Your task to perform on an android device: Open notification settings Image 0: 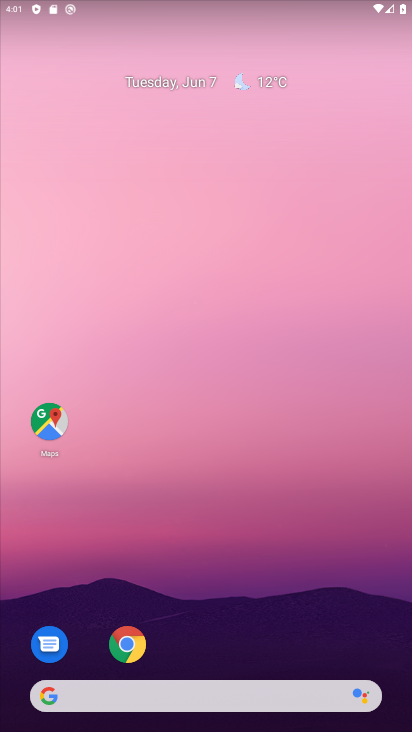
Step 0: drag from (213, 651) to (219, 244)
Your task to perform on an android device: Open notification settings Image 1: 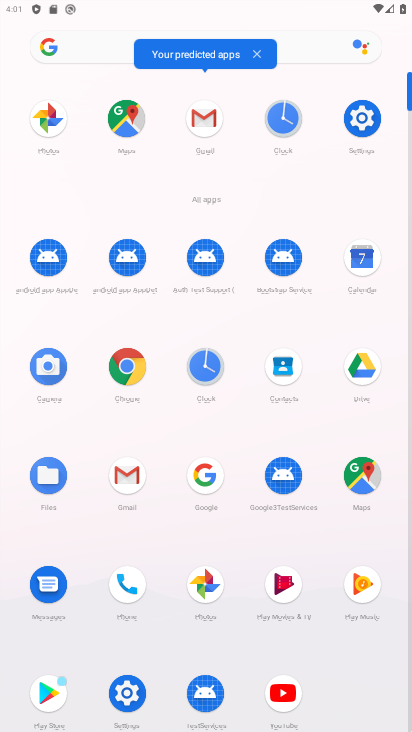
Step 1: click (360, 121)
Your task to perform on an android device: Open notification settings Image 2: 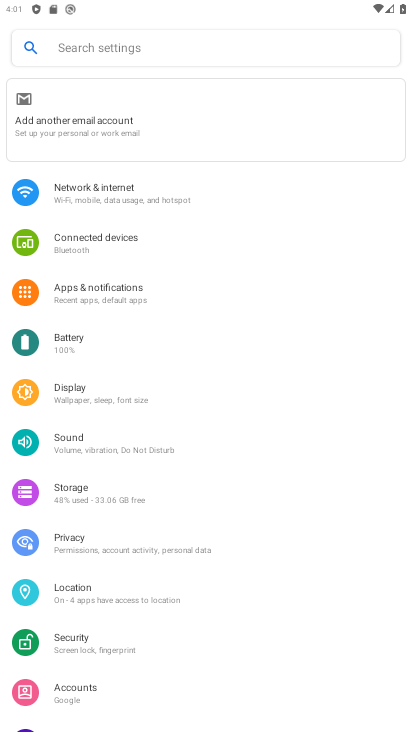
Step 2: click (140, 287)
Your task to perform on an android device: Open notification settings Image 3: 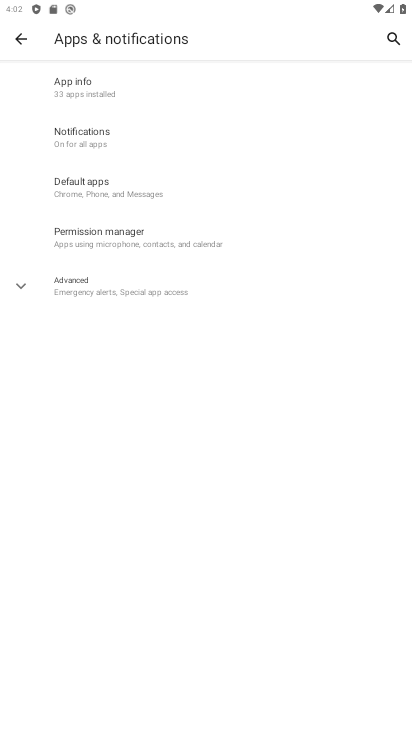
Step 3: task complete